Your task to perform on an android device: Open my contact list Image 0: 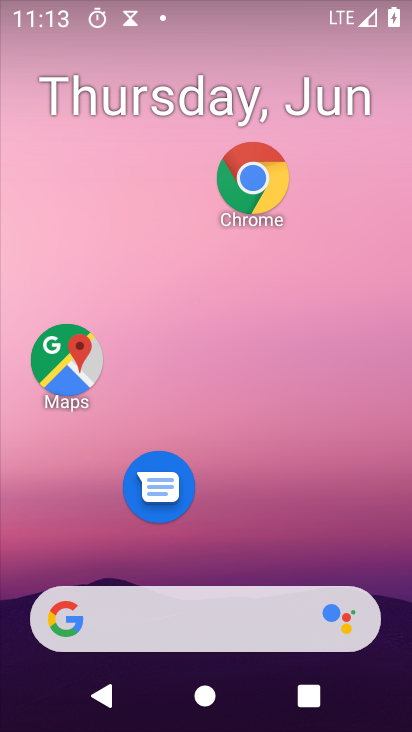
Step 0: drag from (235, 671) to (189, 104)
Your task to perform on an android device: Open my contact list Image 1: 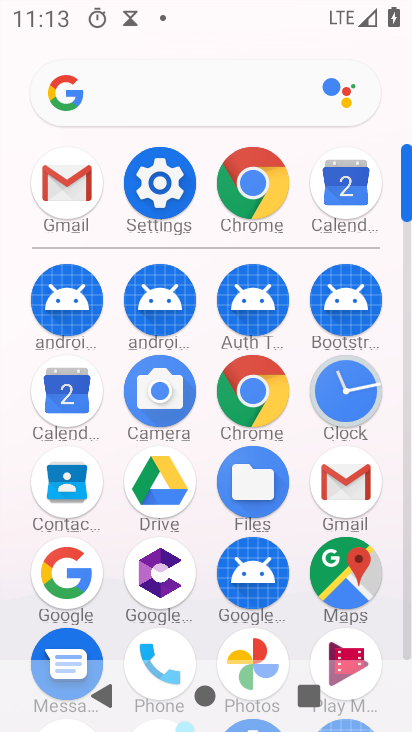
Step 1: click (57, 483)
Your task to perform on an android device: Open my contact list Image 2: 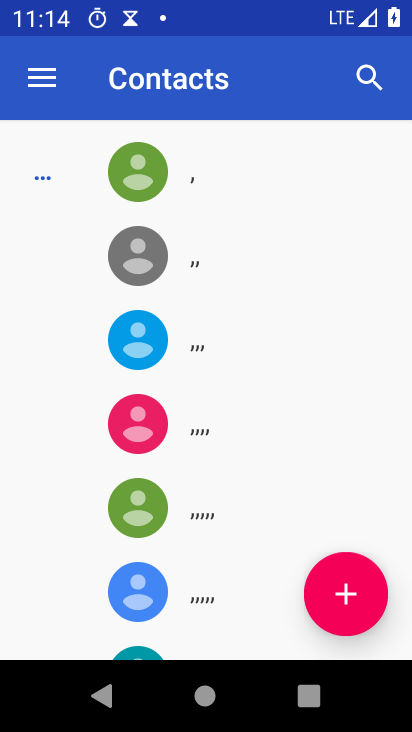
Step 2: task complete